Your task to perform on an android device: toggle location history Image 0: 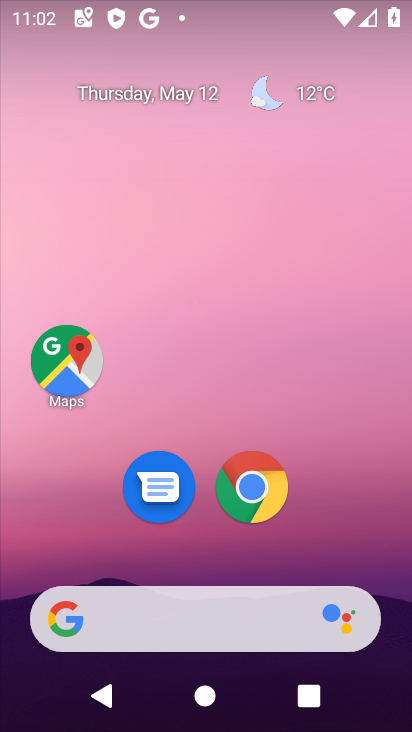
Step 0: click (58, 365)
Your task to perform on an android device: toggle location history Image 1: 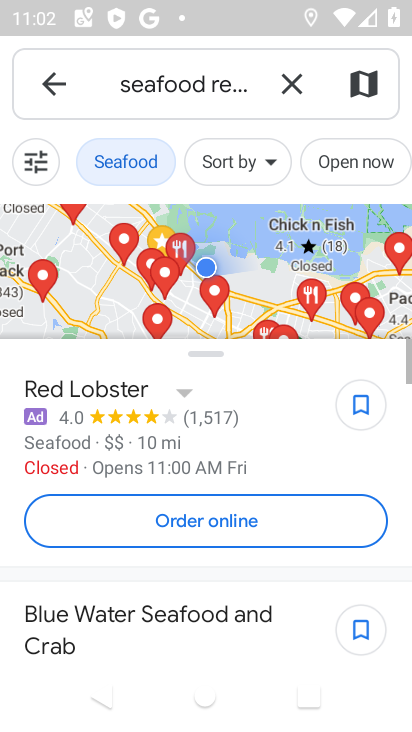
Step 1: click (286, 88)
Your task to perform on an android device: toggle location history Image 2: 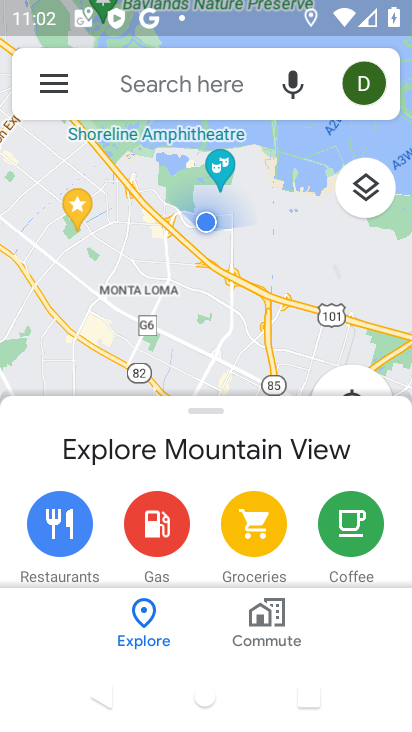
Step 2: click (51, 88)
Your task to perform on an android device: toggle location history Image 3: 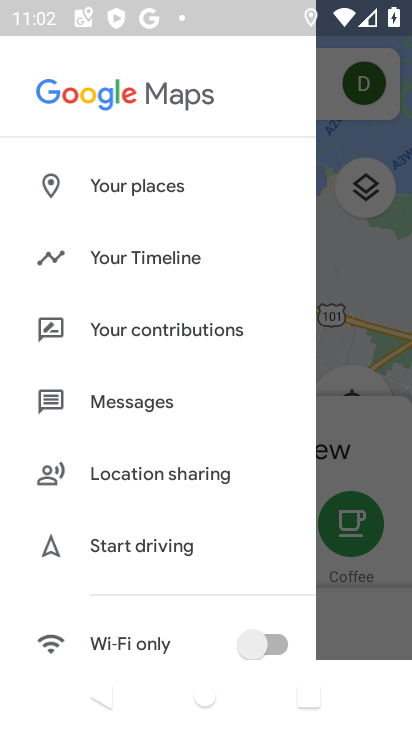
Step 3: click (132, 262)
Your task to perform on an android device: toggle location history Image 4: 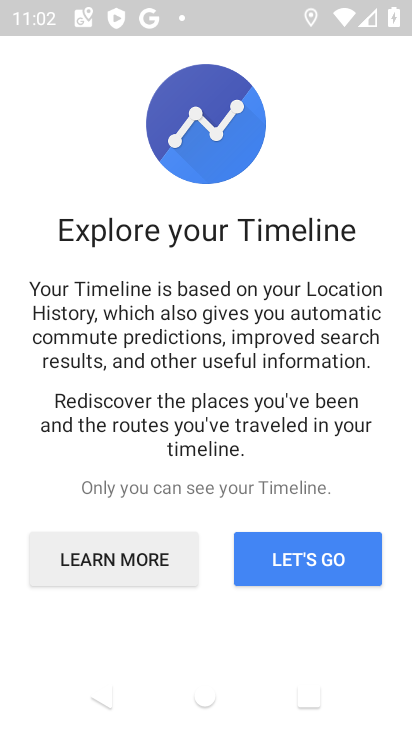
Step 4: click (298, 563)
Your task to perform on an android device: toggle location history Image 5: 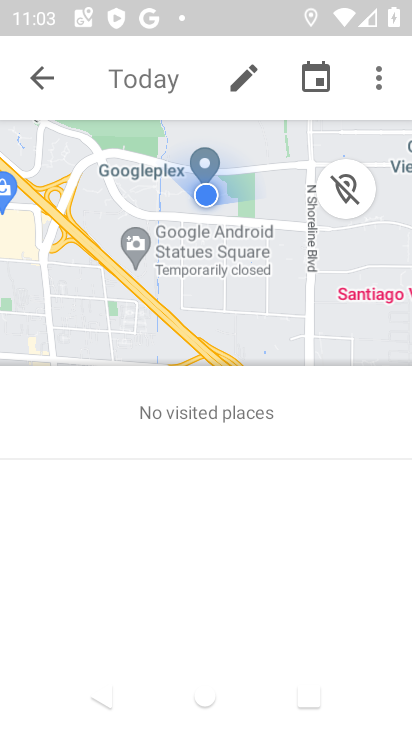
Step 5: click (378, 79)
Your task to perform on an android device: toggle location history Image 6: 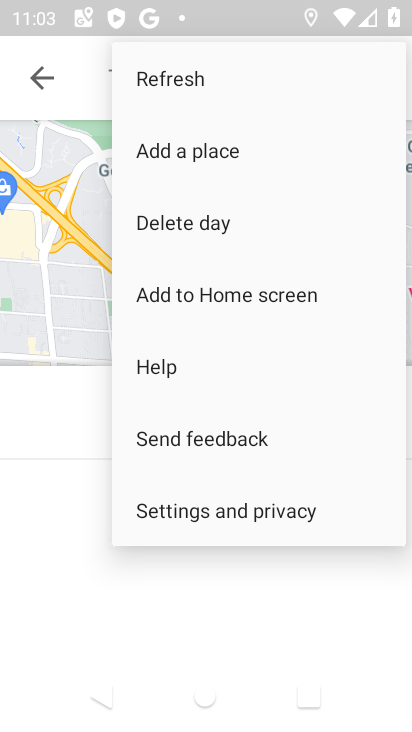
Step 6: click (206, 513)
Your task to perform on an android device: toggle location history Image 7: 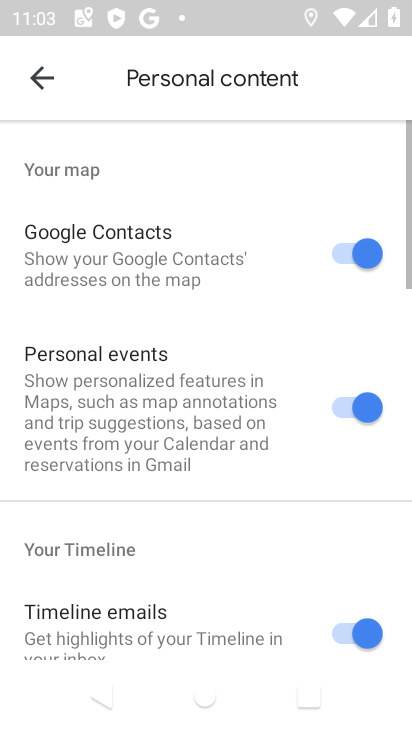
Step 7: drag from (205, 533) to (263, 22)
Your task to perform on an android device: toggle location history Image 8: 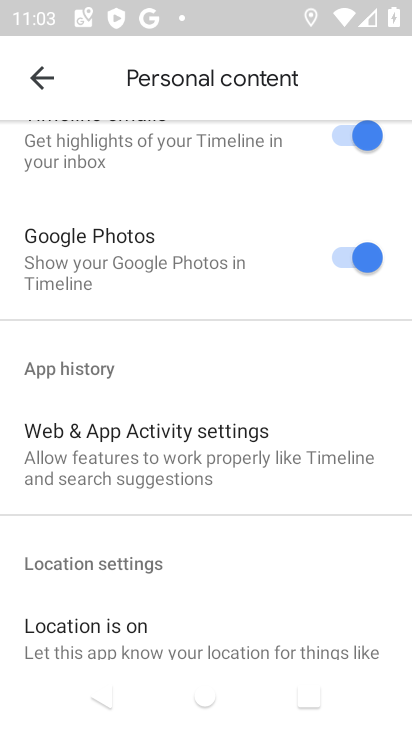
Step 8: drag from (148, 491) to (177, 63)
Your task to perform on an android device: toggle location history Image 9: 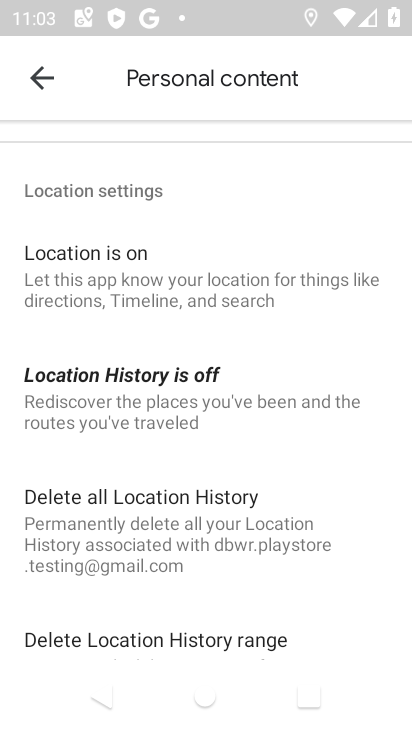
Step 9: click (104, 397)
Your task to perform on an android device: toggle location history Image 10: 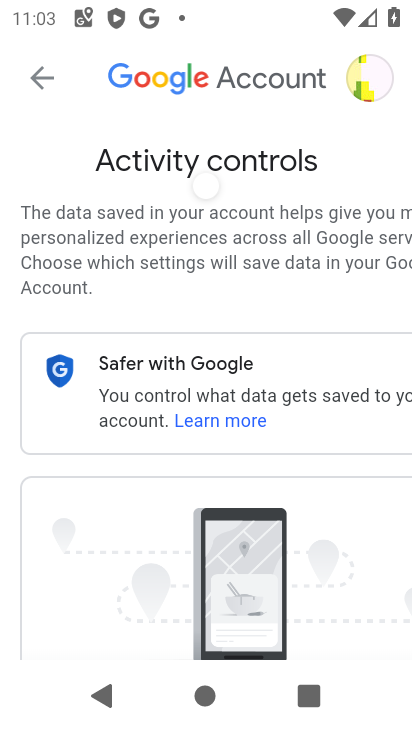
Step 10: drag from (299, 564) to (292, 83)
Your task to perform on an android device: toggle location history Image 11: 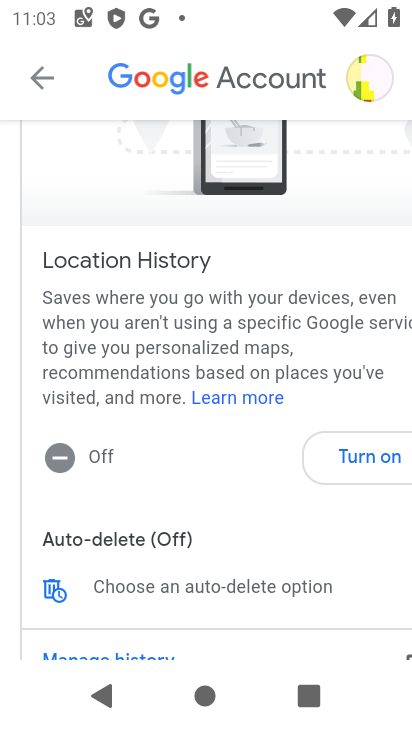
Step 11: click (354, 466)
Your task to perform on an android device: toggle location history Image 12: 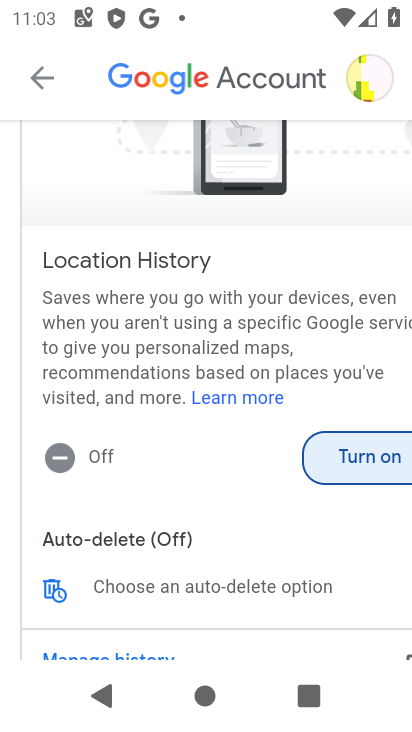
Step 12: click (355, 464)
Your task to perform on an android device: toggle location history Image 13: 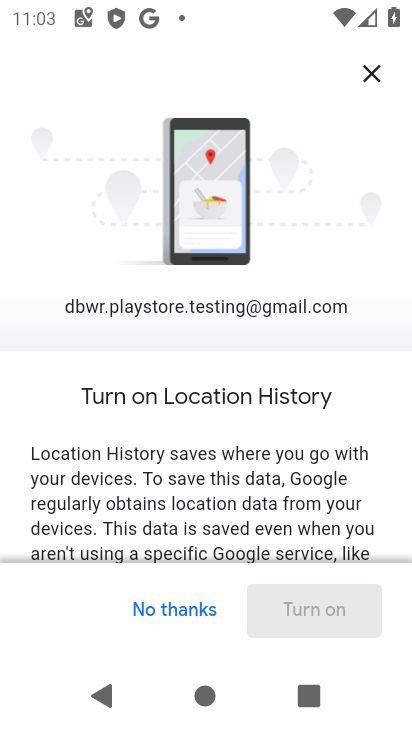
Step 13: drag from (204, 520) to (191, 8)
Your task to perform on an android device: toggle location history Image 14: 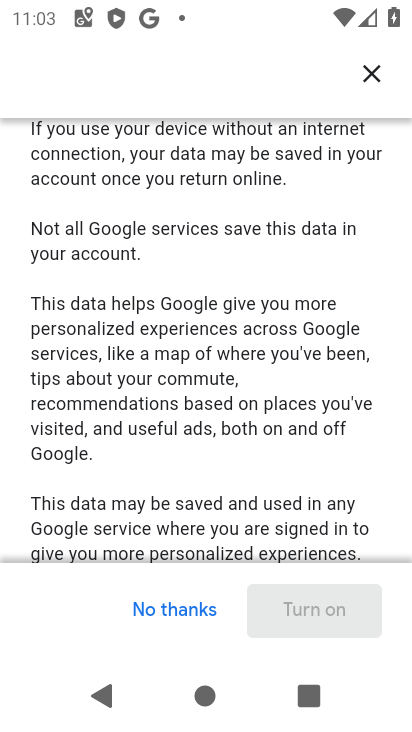
Step 14: drag from (157, 441) to (163, 4)
Your task to perform on an android device: toggle location history Image 15: 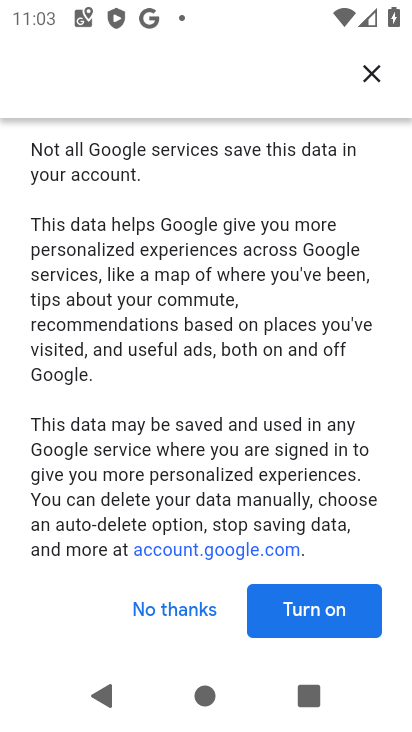
Step 15: click (321, 612)
Your task to perform on an android device: toggle location history Image 16: 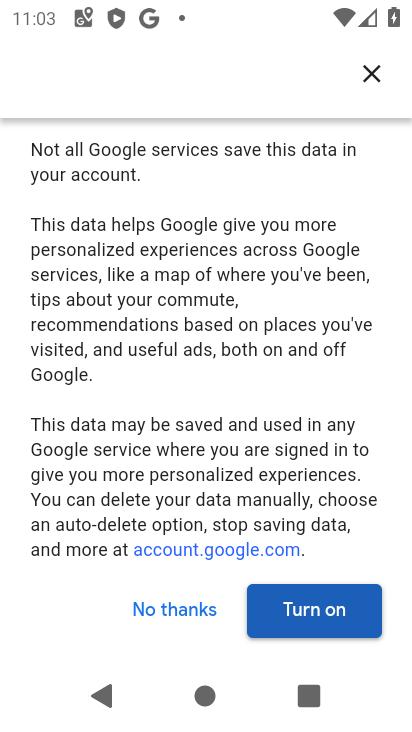
Step 16: click (321, 613)
Your task to perform on an android device: toggle location history Image 17: 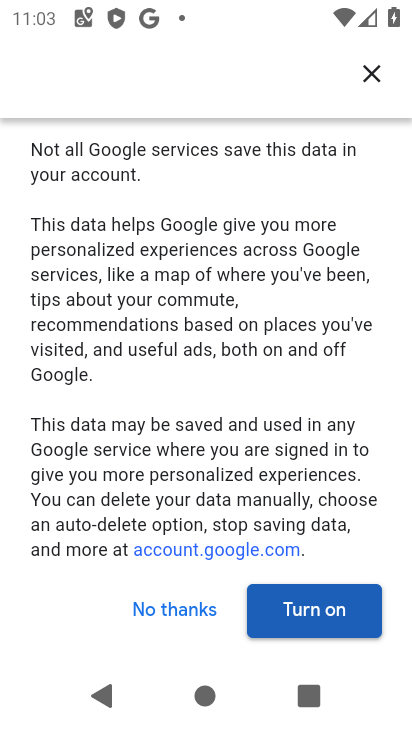
Step 17: click (316, 614)
Your task to perform on an android device: toggle location history Image 18: 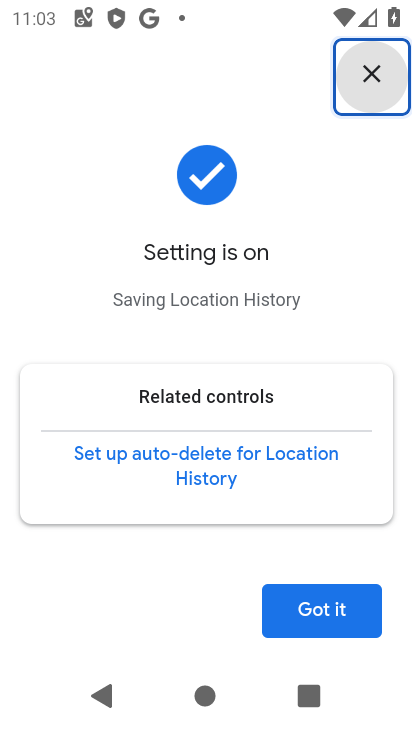
Step 18: click (316, 614)
Your task to perform on an android device: toggle location history Image 19: 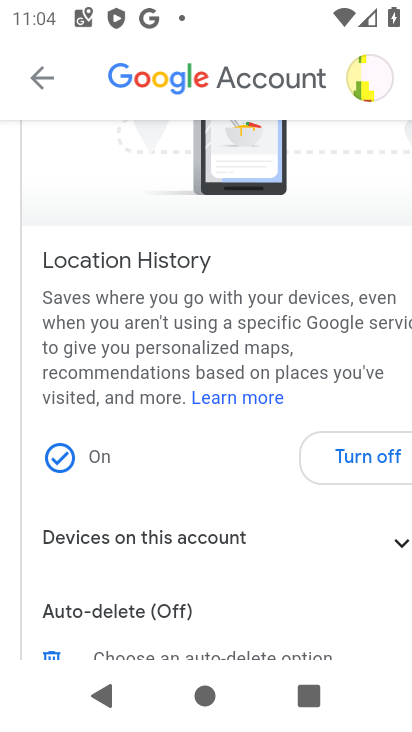
Step 19: task complete